Your task to perform on an android device: turn off location Image 0: 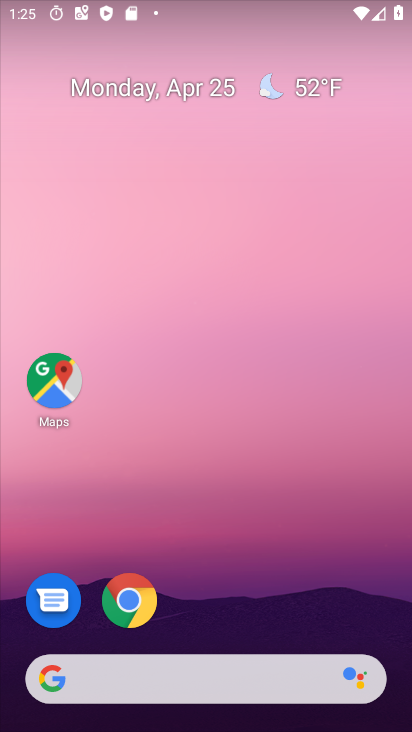
Step 0: drag from (204, 617) to (332, 37)
Your task to perform on an android device: turn off location Image 1: 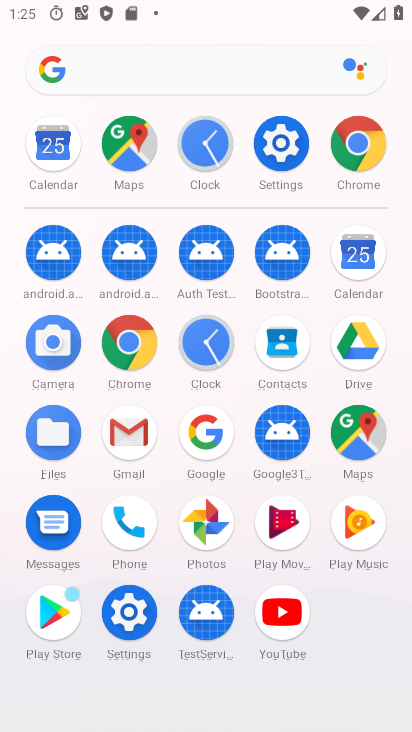
Step 1: click (283, 153)
Your task to perform on an android device: turn off location Image 2: 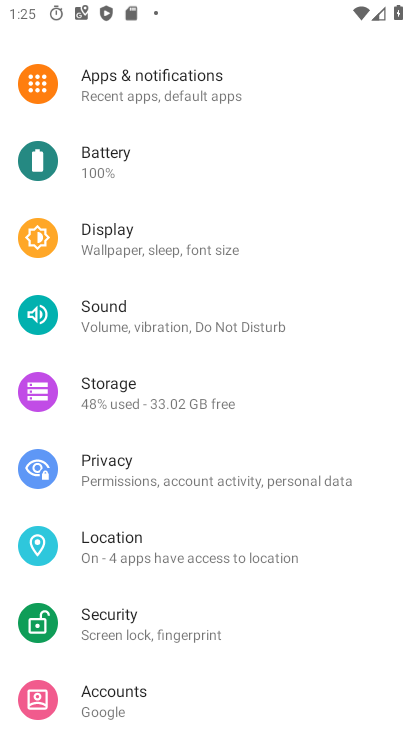
Step 2: click (160, 544)
Your task to perform on an android device: turn off location Image 3: 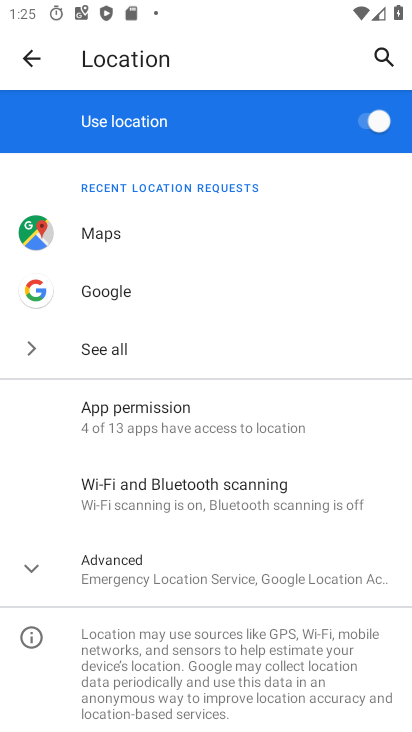
Step 3: click (367, 118)
Your task to perform on an android device: turn off location Image 4: 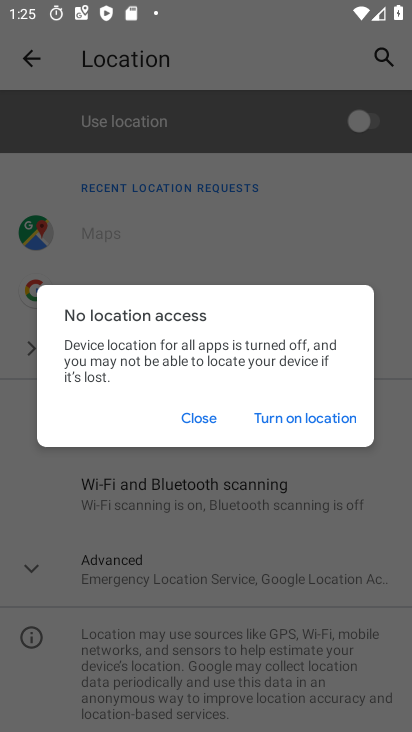
Step 4: task complete